Your task to perform on an android device: What's on my calendar today? Image 0: 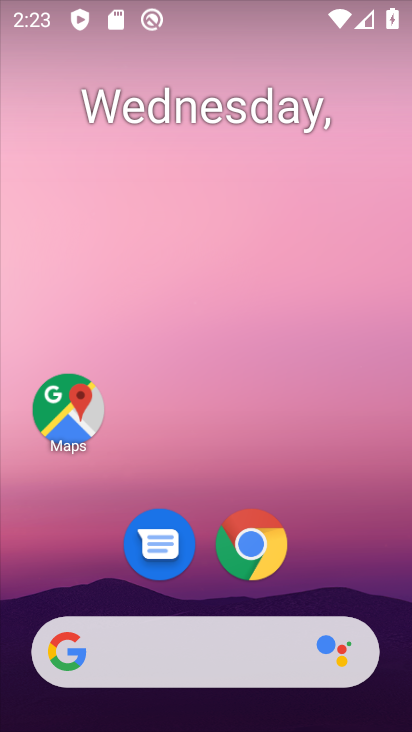
Step 0: drag from (69, 603) to (192, 177)
Your task to perform on an android device: What's on my calendar today? Image 1: 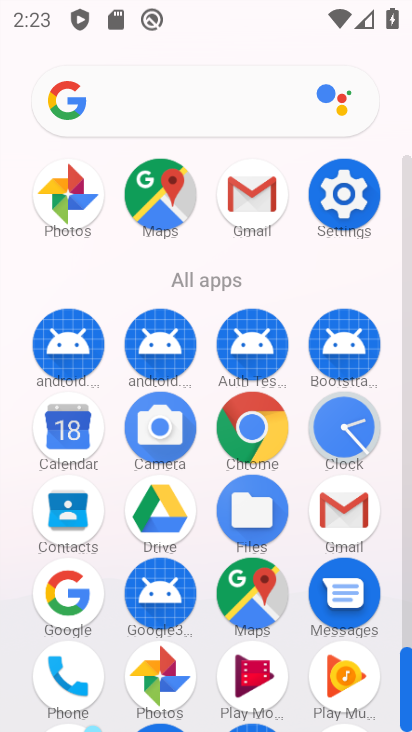
Step 1: click (72, 451)
Your task to perform on an android device: What's on my calendar today? Image 2: 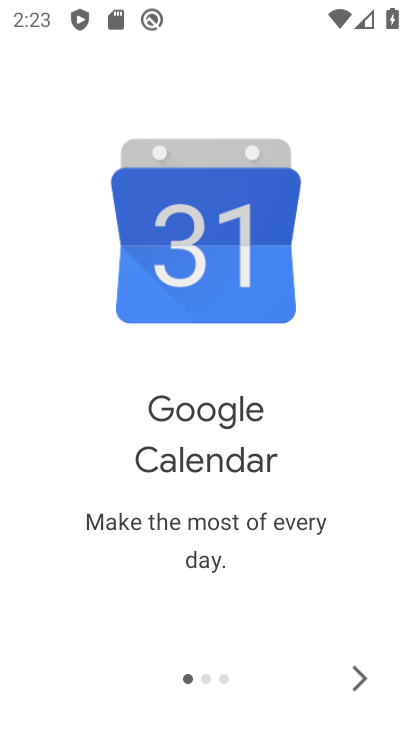
Step 2: click (372, 694)
Your task to perform on an android device: What's on my calendar today? Image 3: 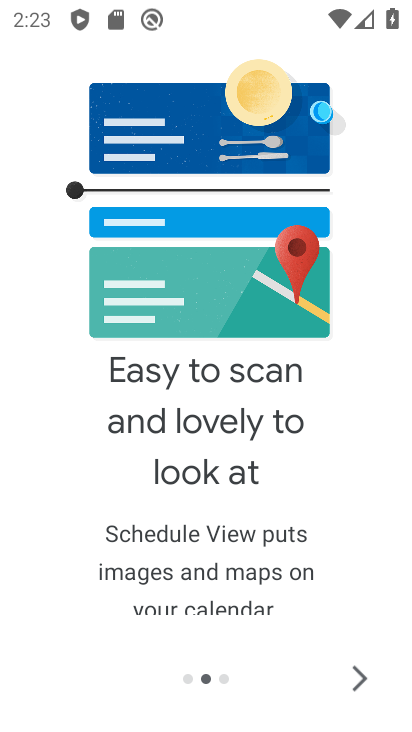
Step 3: click (373, 693)
Your task to perform on an android device: What's on my calendar today? Image 4: 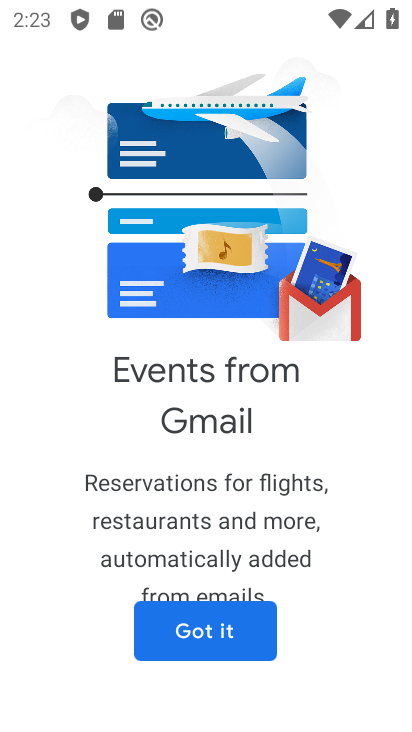
Step 4: click (229, 642)
Your task to perform on an android device: What's on my calendar today? Image 5: 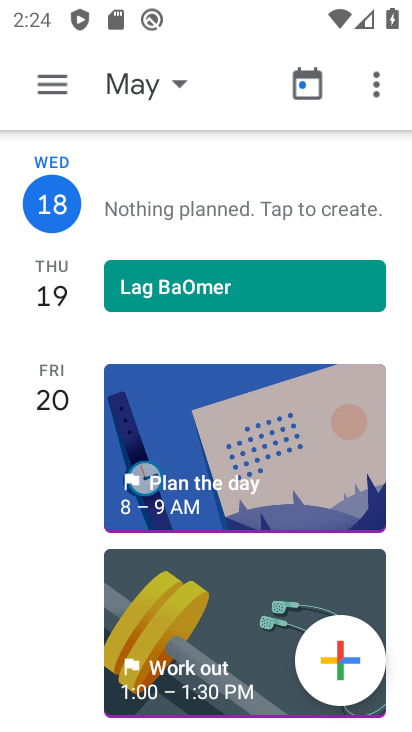
Step 5: task complete